Your task to perform on an android device: Search for usb-c to usb-a on target.com, select the first entry, and add it to the cart. Image 0: 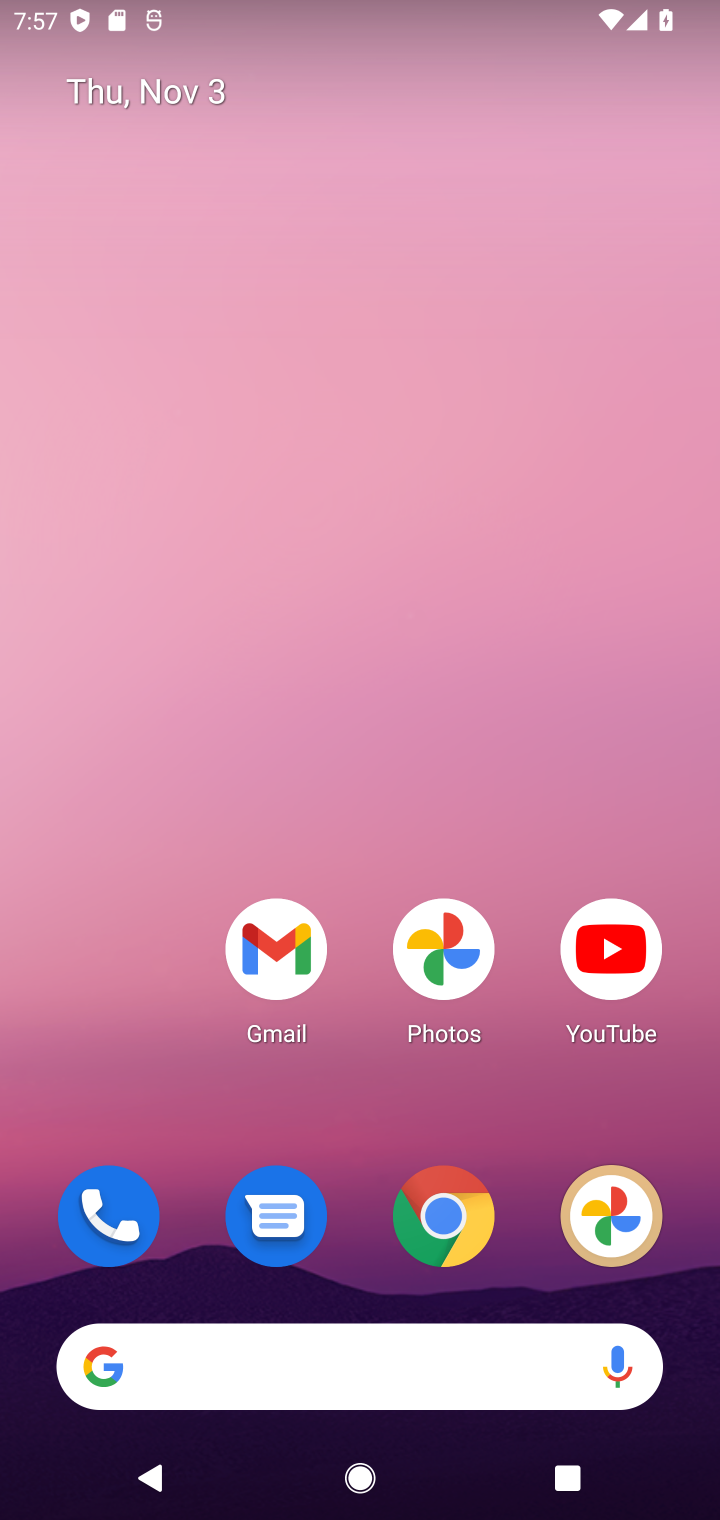
Step 0: click (434, 1245)
Your task to perform on an android device: Search for usb-c to usb-a on target.com, select the first entry, and add it to the cart. Image 1: 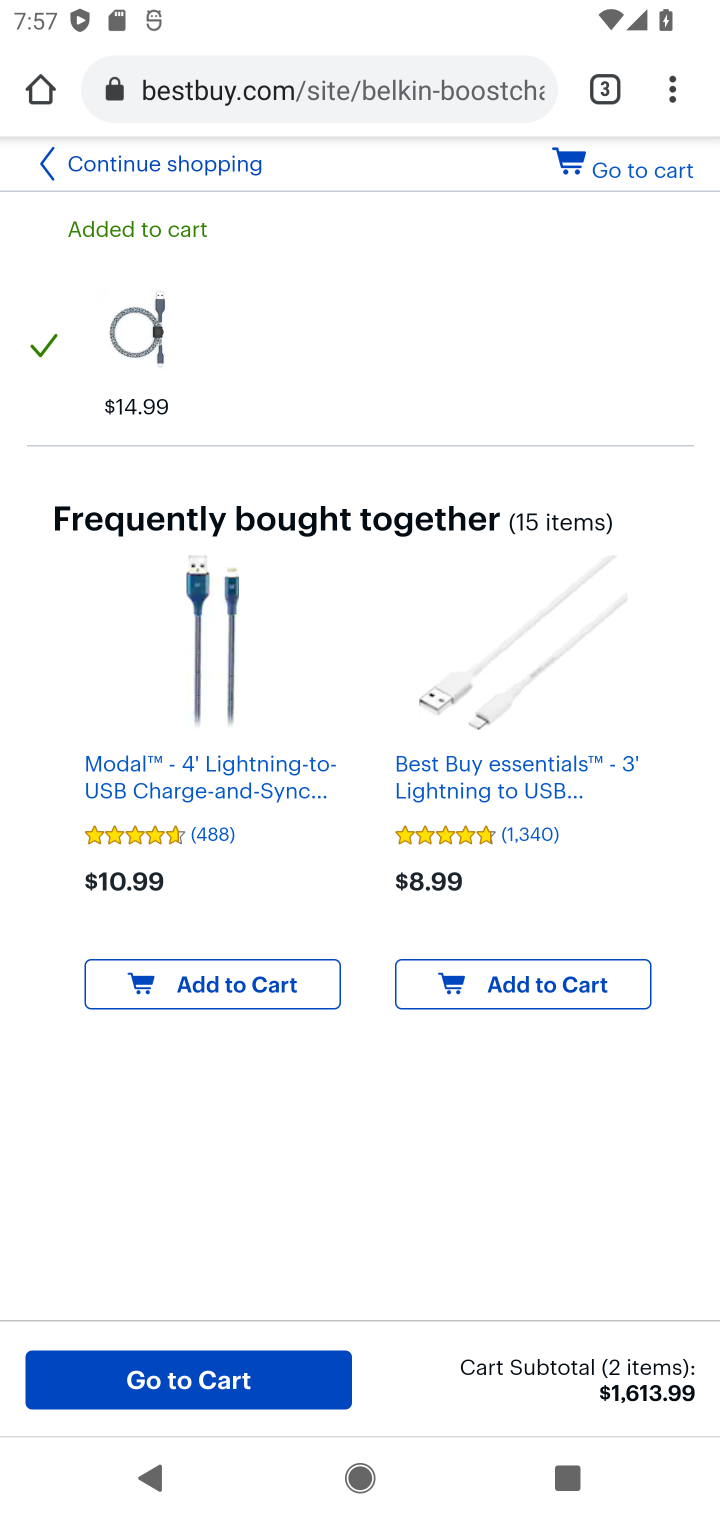
Step 1: click (604, 82)
Your task to perform on an android device: Search for usb-c to usb-a on target.com, select the first entry, and add it to the cart. Image 2: 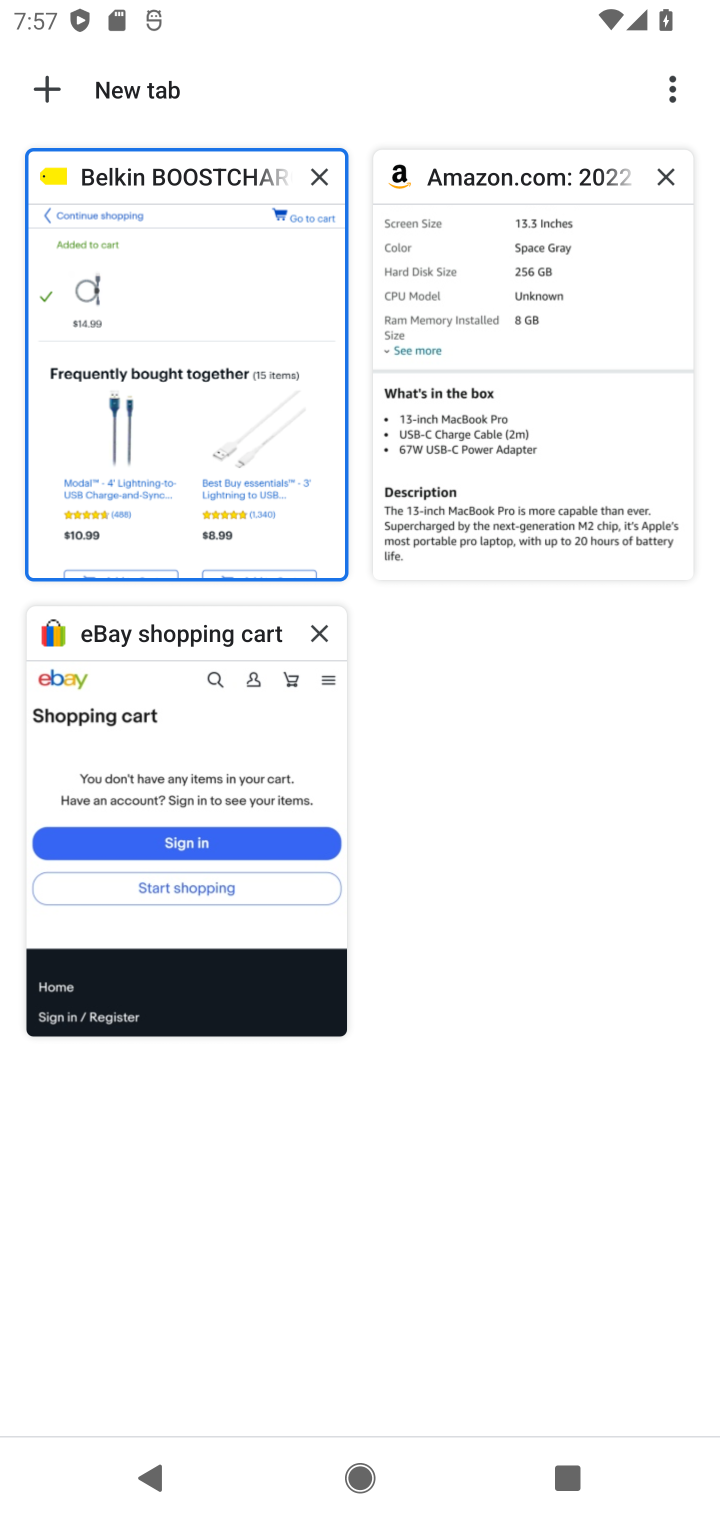
Step 2: click (110, 100)
Your task to perform on an android device: Search for usb-c to usb-a on target.com, select the first entry, and add it to the cart. Image 3: 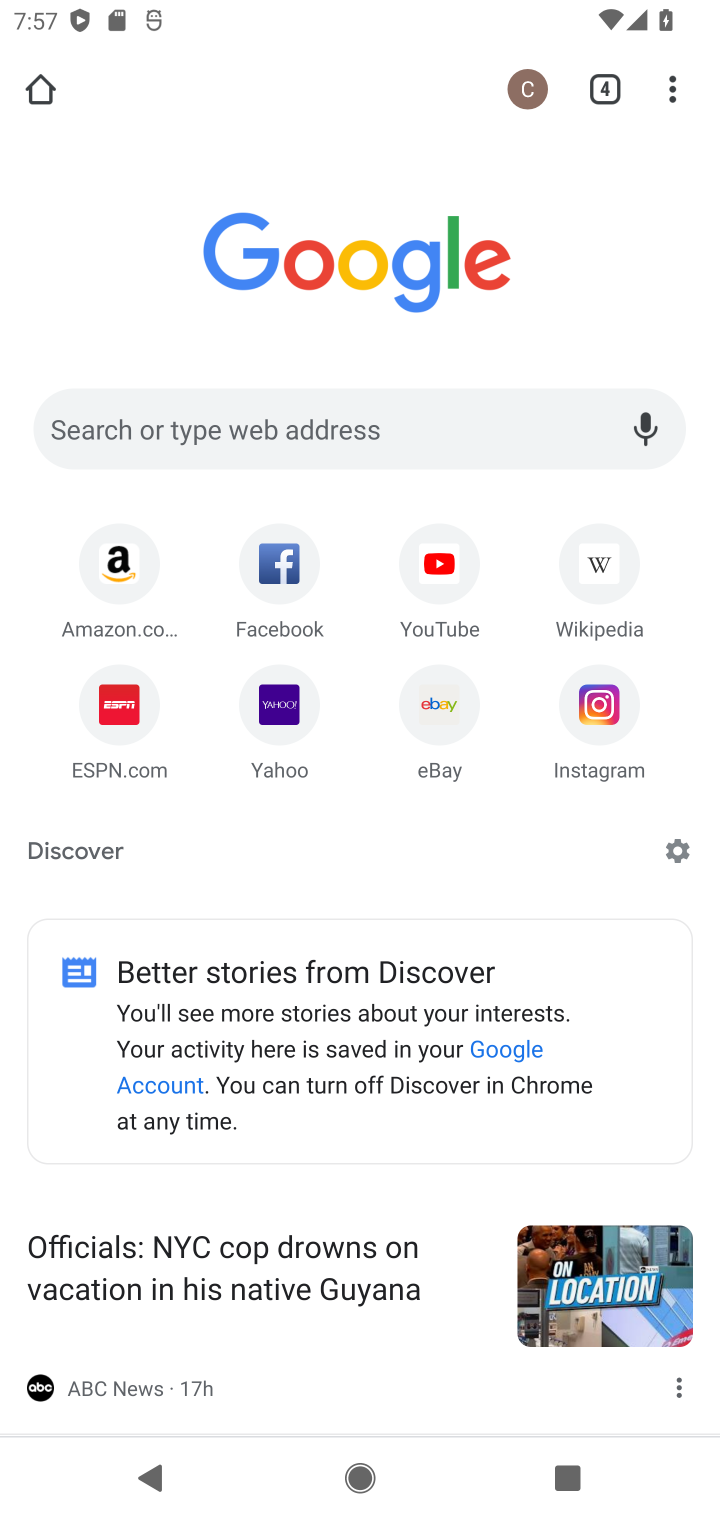
Step 3: click (270, 413)
Your task to perform on an android device: Search for usb-c to usb-a on target.com, select the first entry, and add it to the cart. Image 4: 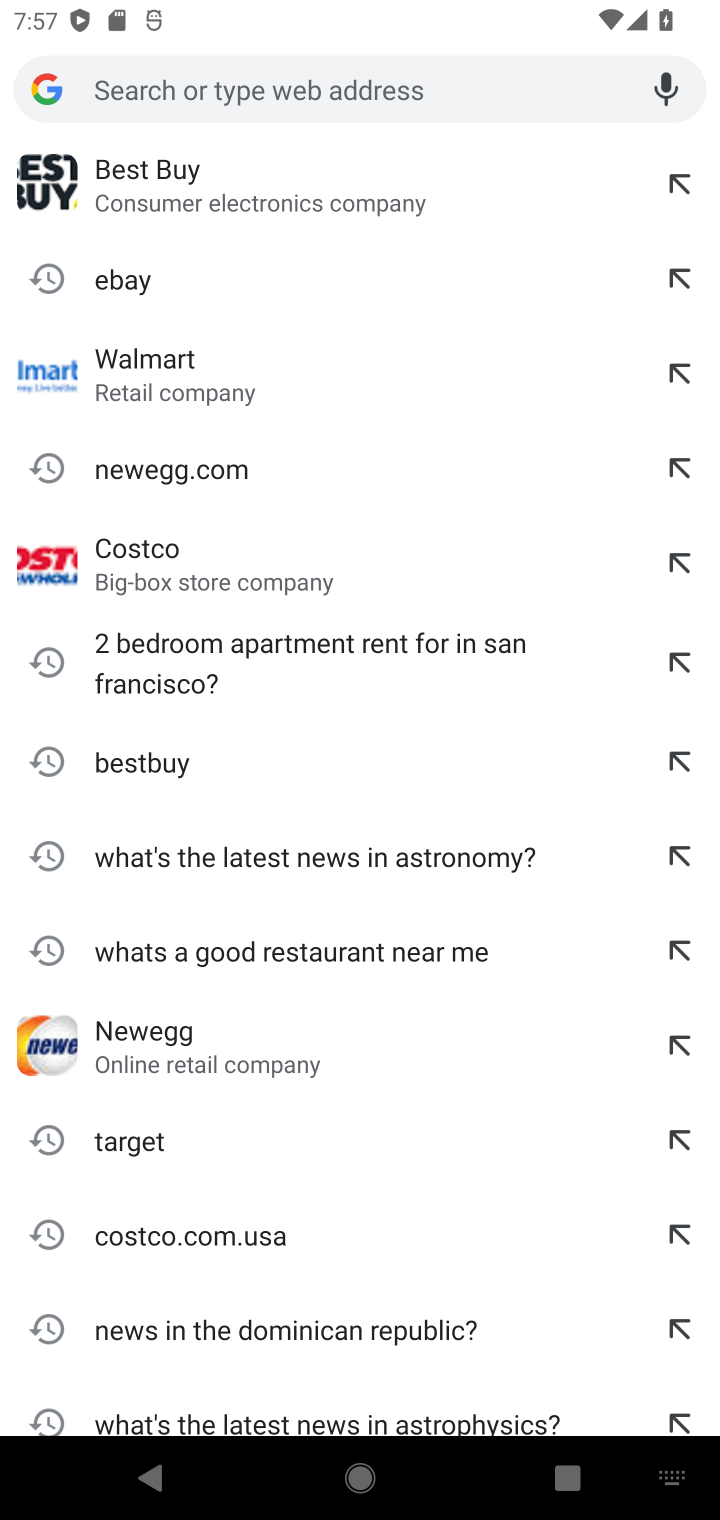
Step 4: click (115, 1141)
Your task to perform on an android device: Search for usb-c to usb-a on target.com, select the first entry, and add it to the cart. Image 5: 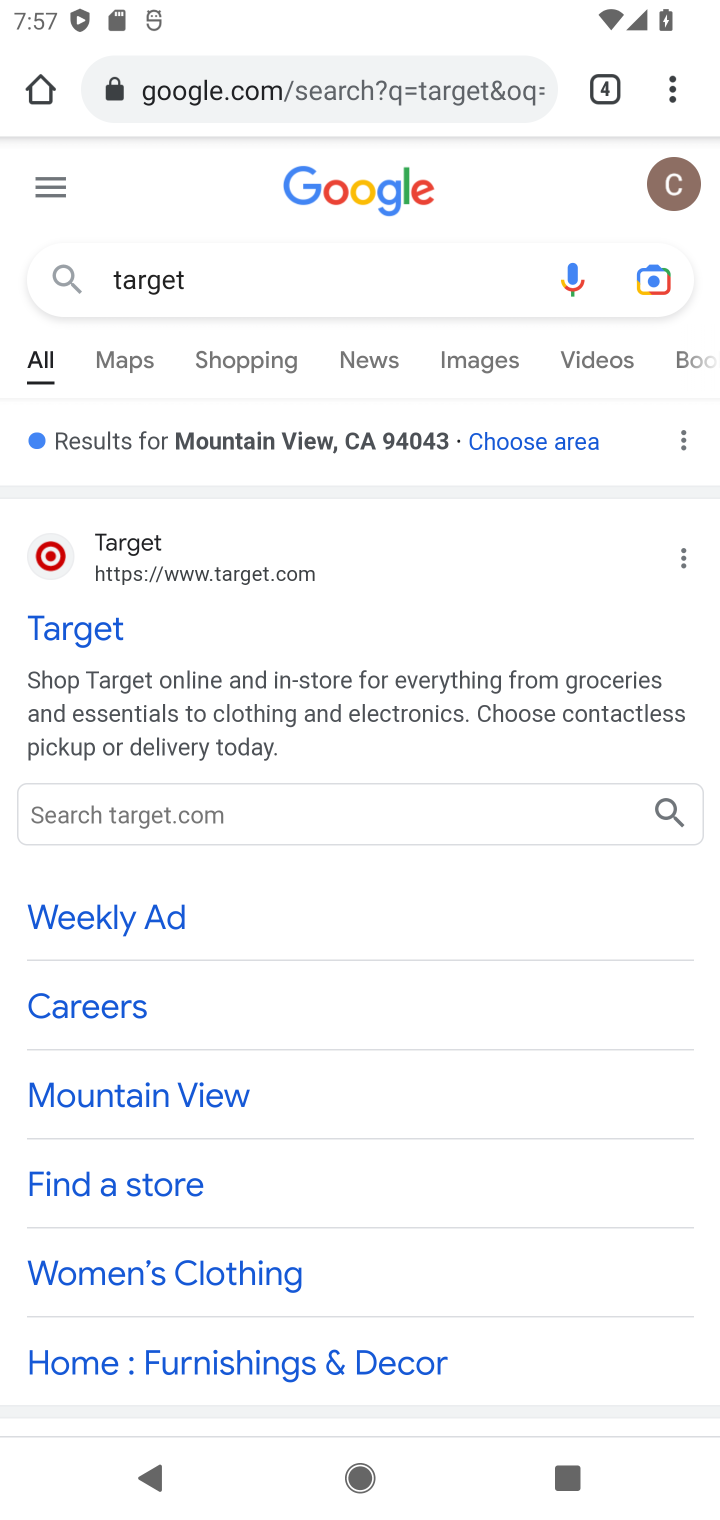
Step 5: click (95, 637)
Your task to perform on an android device: Search for usb-c to usb-a on target.com, select the first entry, and add it to the cart. Image 6: 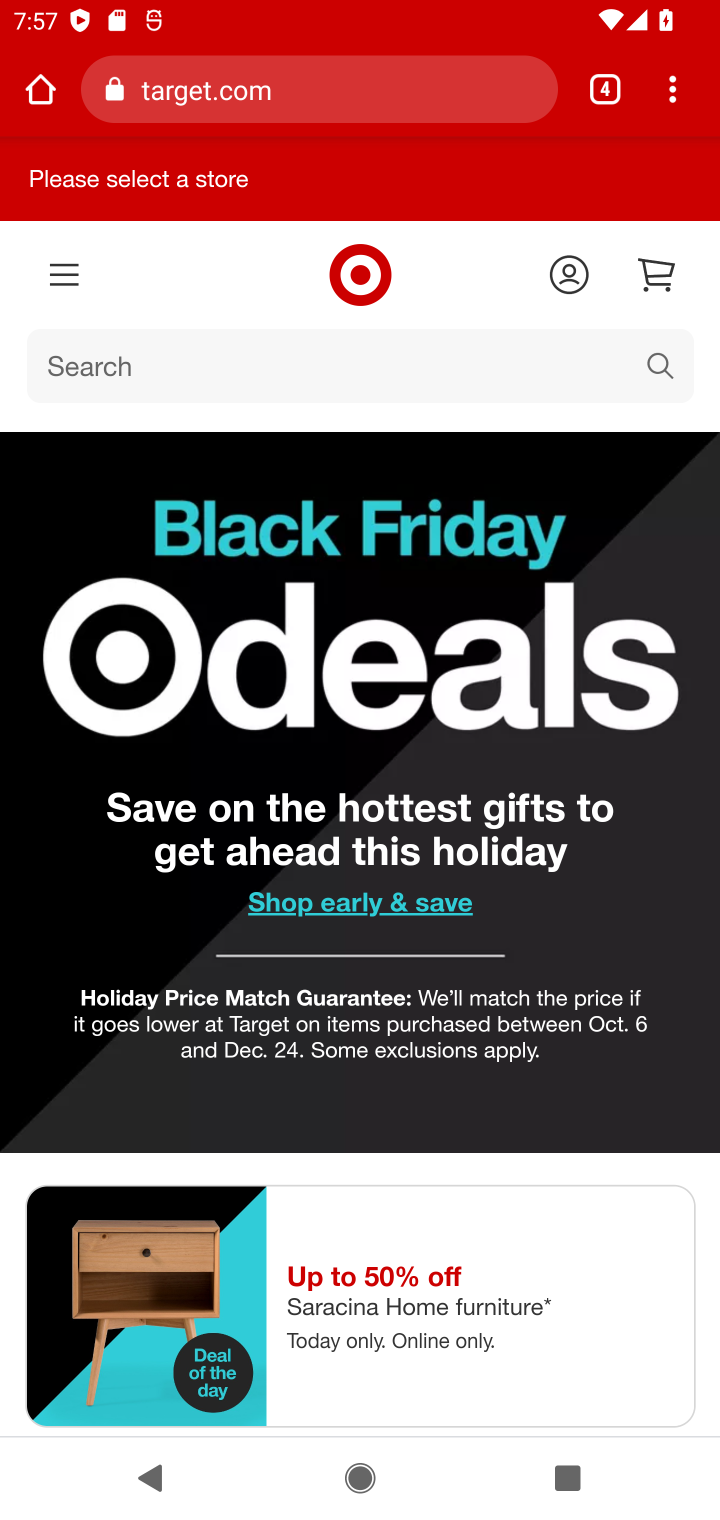
Step 6: click (118, 362)
Your task to perform on an android device: Search for usb-c to usb-a on target.com, select the first entry, and add it to the cart. Image 7: 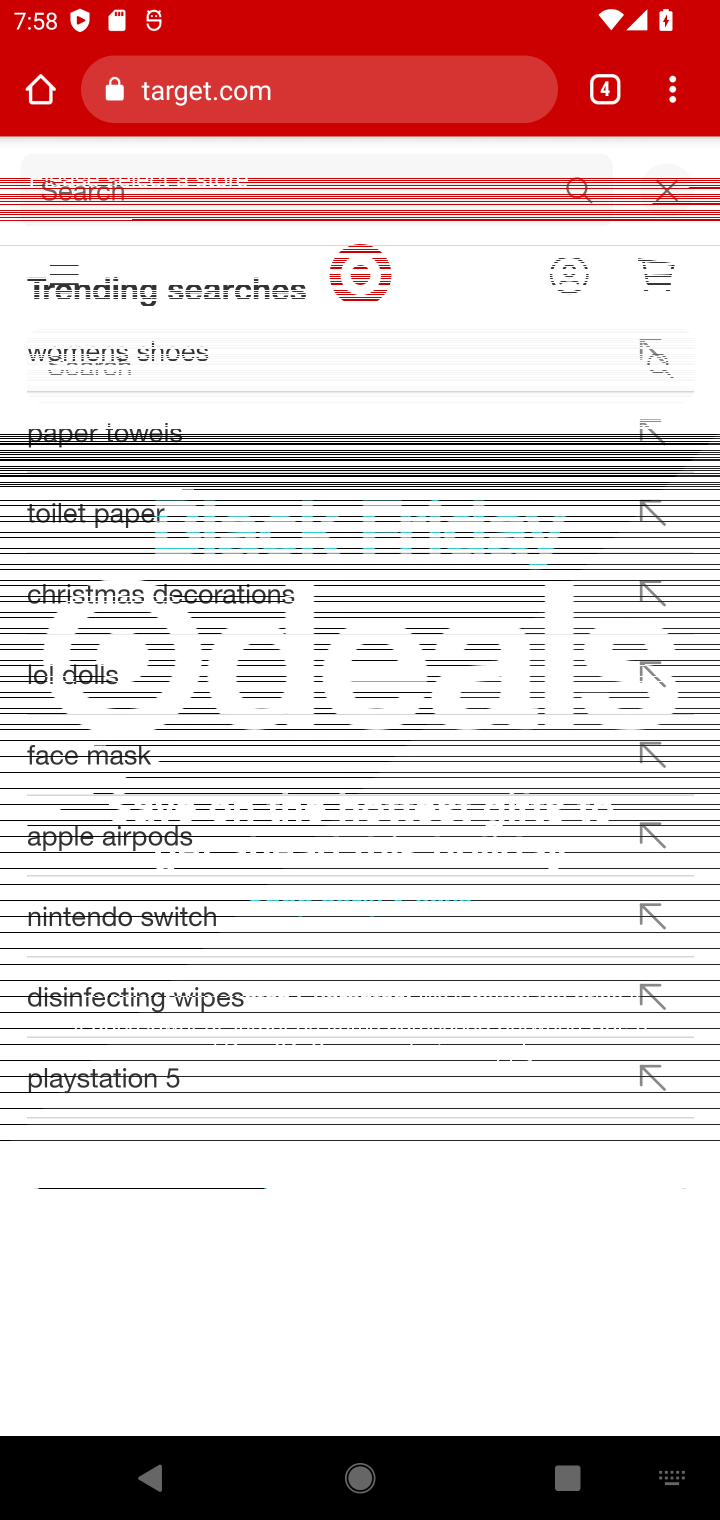
Step 7: type "usb-c to usb-a "
Your task to perform on an android device: Search for usb-c to usb-a on target.com, select the first entry, and add it to the cart. Image 8: 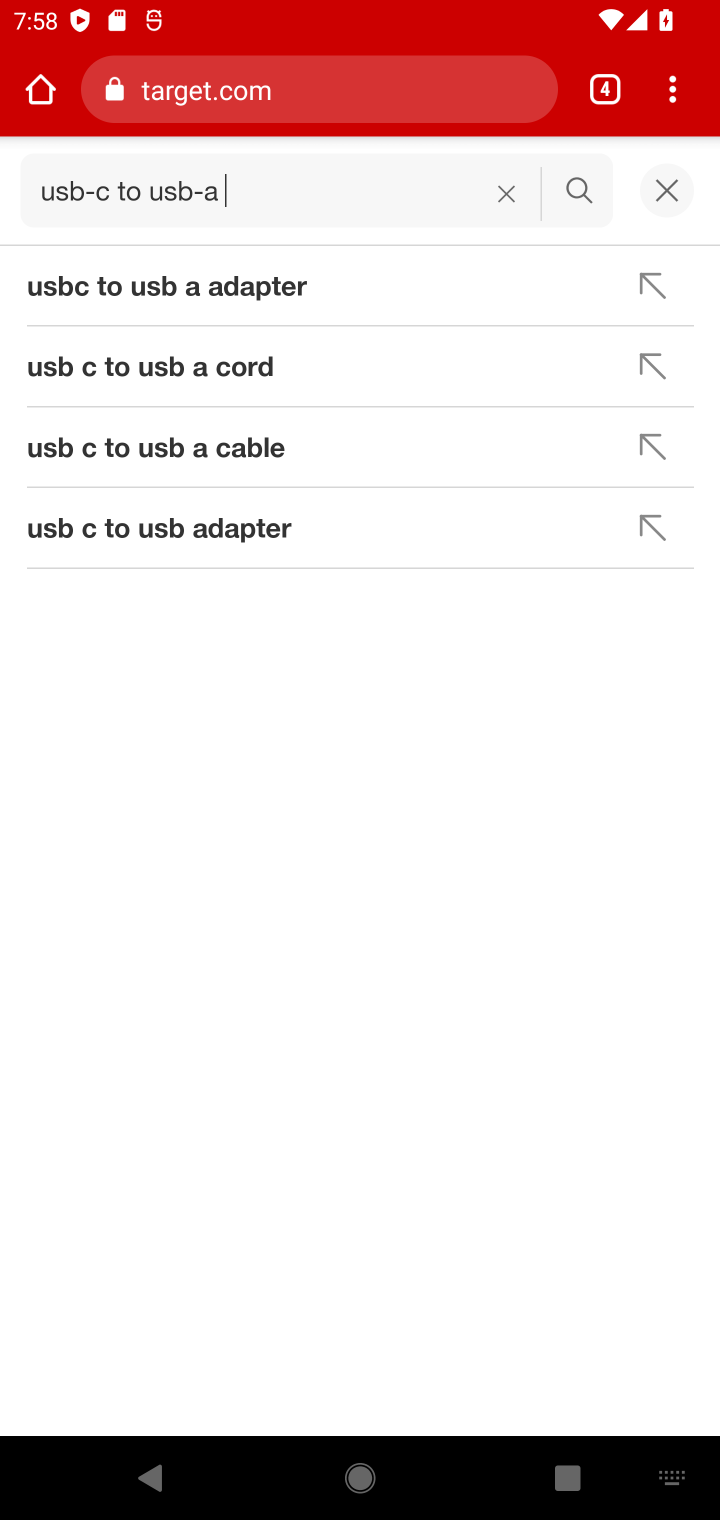
Step 8: press enter
Your task to perform on an android device: Search for usb-c to usb-a on target.com, select the first entry, and add it to the cart. Image 9: 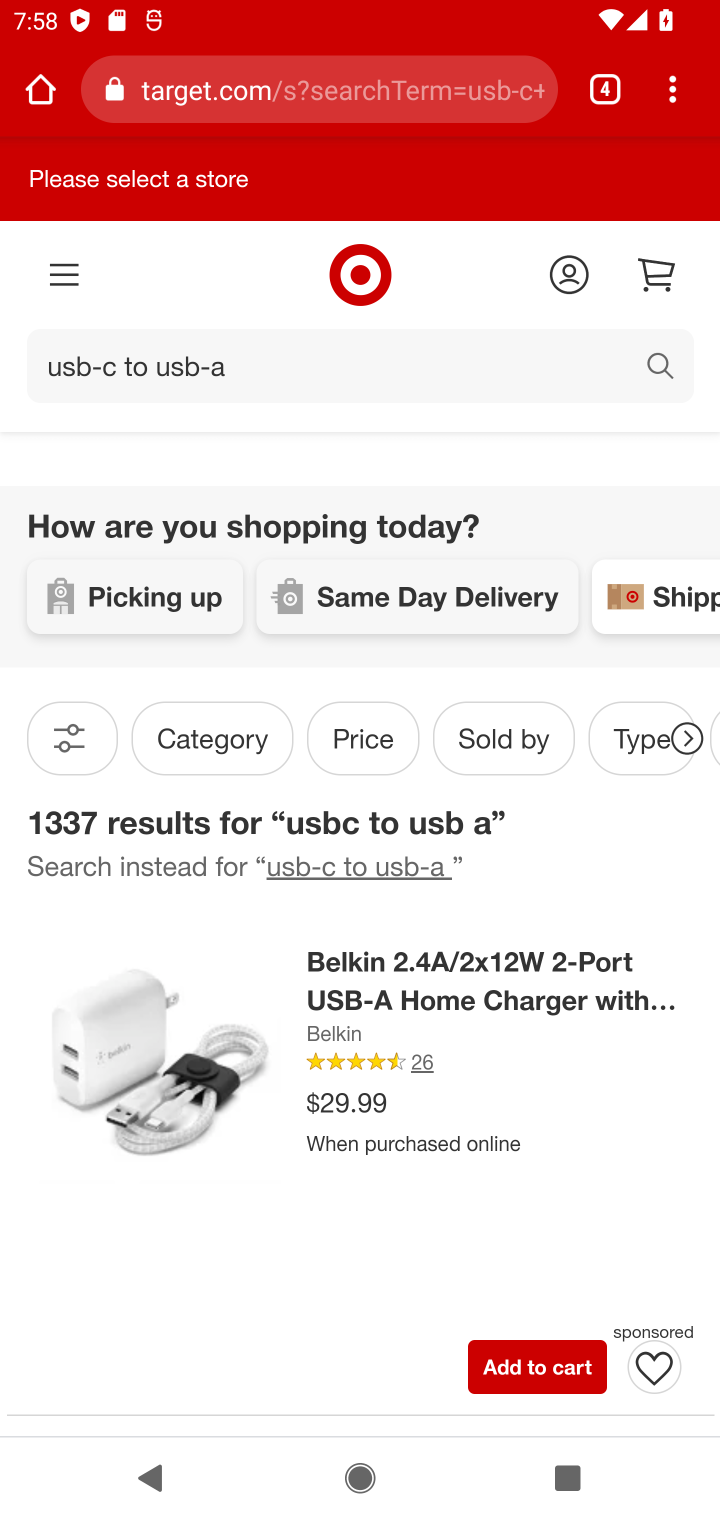
Step 9: drag from (575, 1102) to (468, 455)
Your task to perform on an android device: Search for usb-c to usb-a on target.com, select the first entry, and add it to the cart. Image 10: 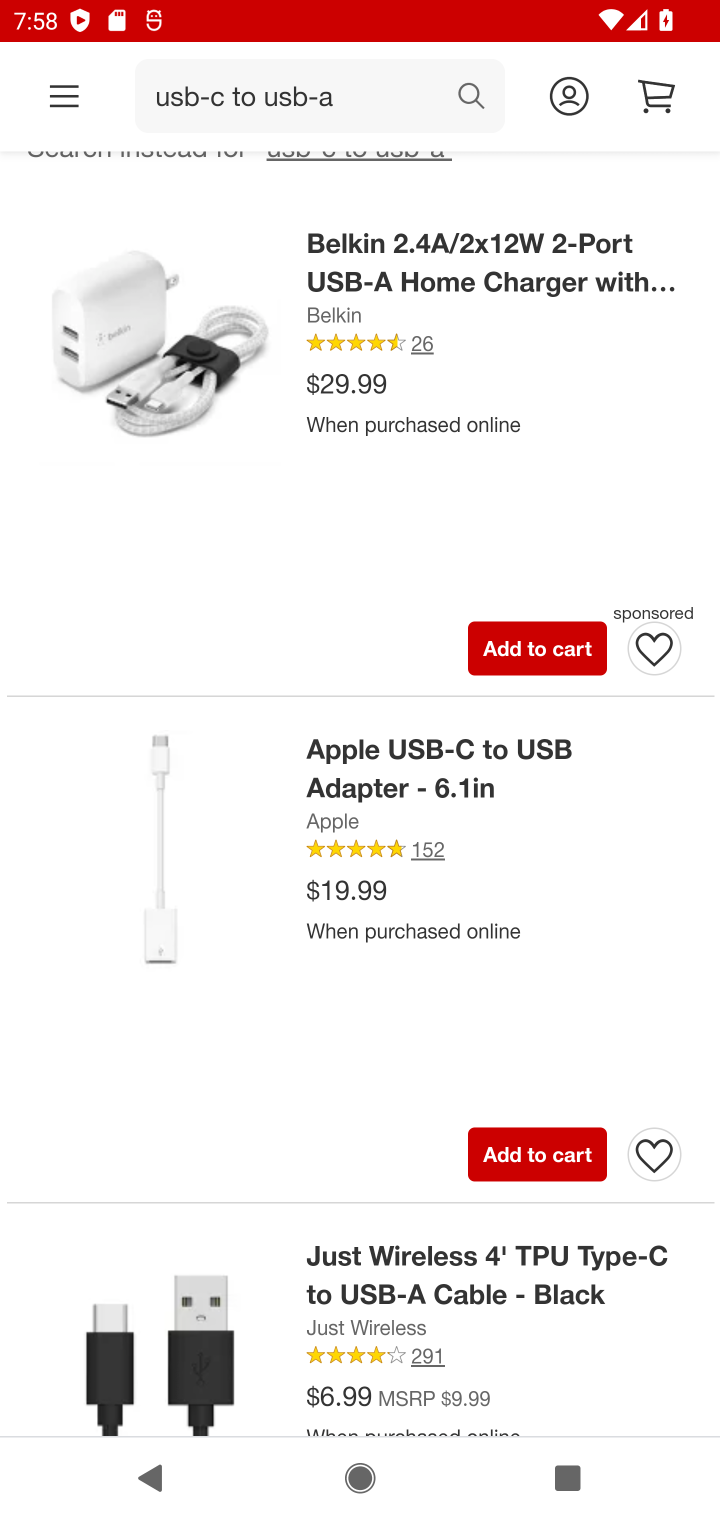
Step 10: click (152, 848)
Your task to perform on an android device: Search for usb-c to usb-a on target.com, select the first entry, and add it to the cart. Image 11: 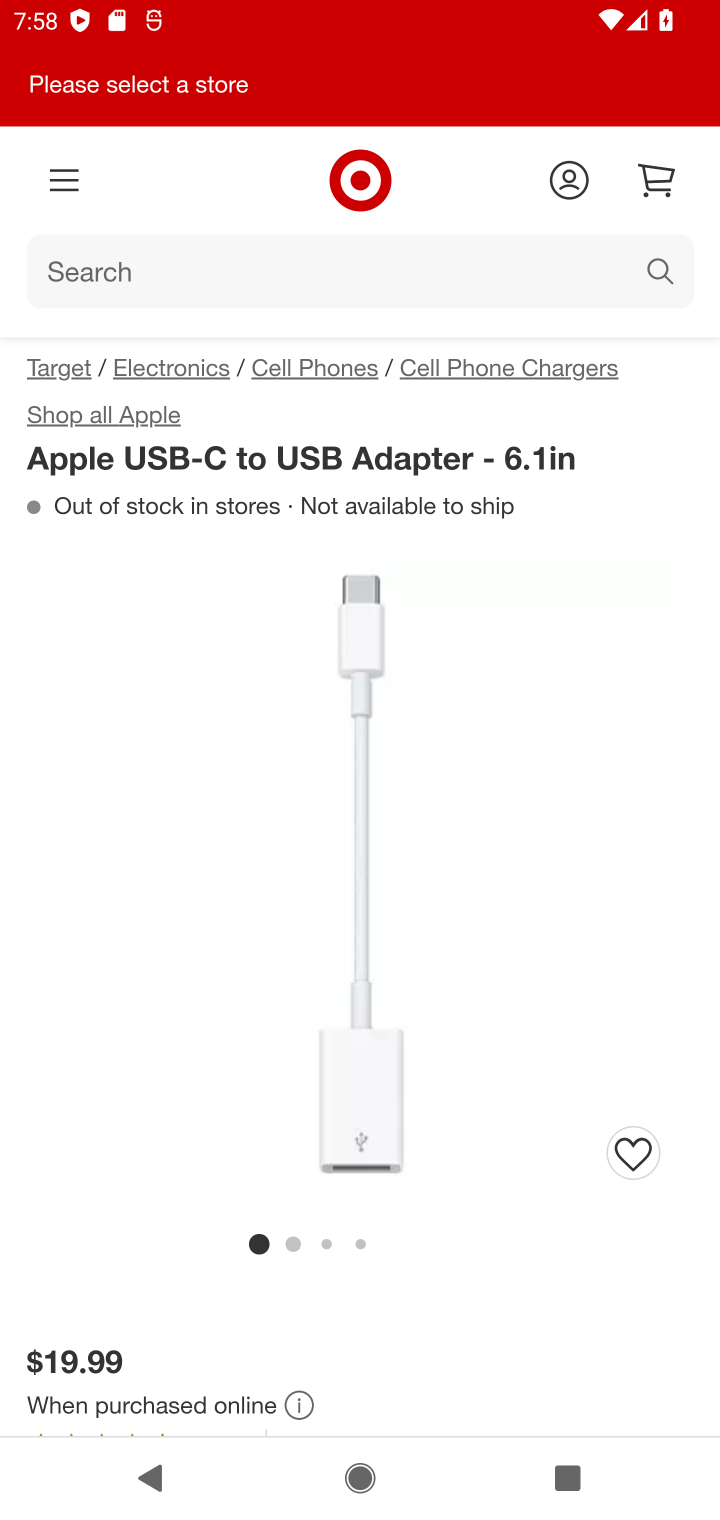
Step 11: drag from (444, 1323) to (271, 462)
Your task to perform on an android device: Search for usb-c to usb-a on target.com, select the first entry, and add it to the cart. Image 12: 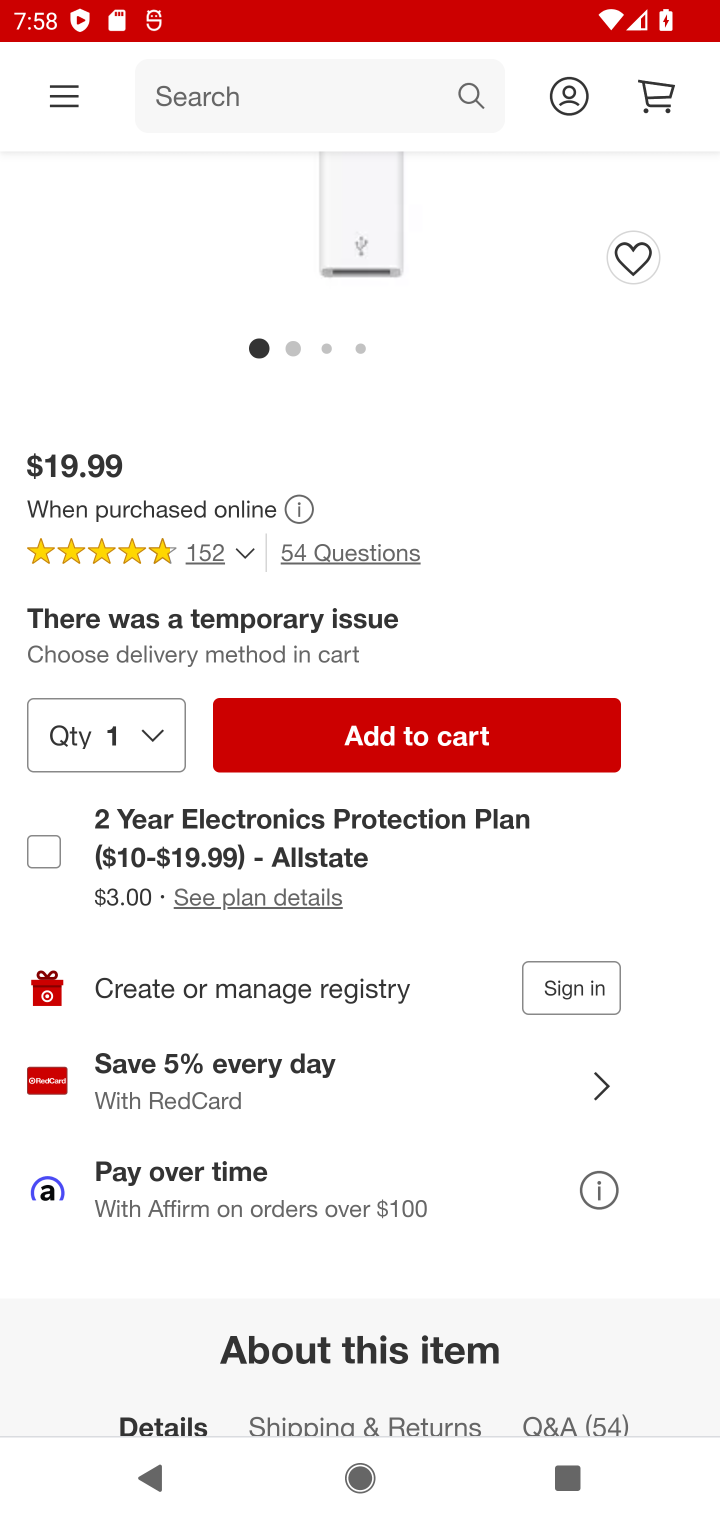
Step 12: click (401, 724)
Your task to perform on an android device: Search for usb-c to usb-a on target.com, select the first entry, and add it to the cart. Image 13: 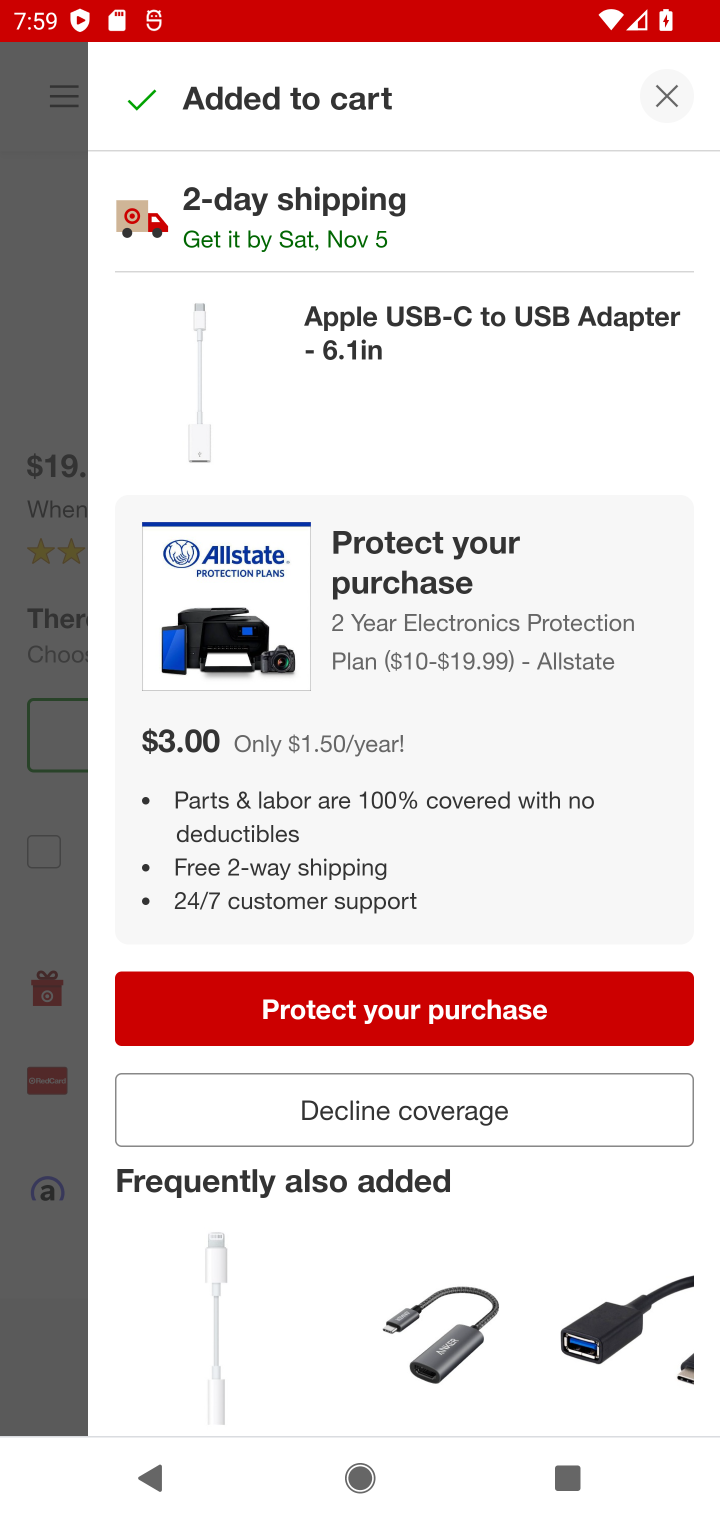
Step 13: task complete